Your task to perform on an android device: Show the shopping cart on ebay.com. Search for bose soundlink on ebay.com, select the first entry, add it to the cart, then select checkout. Image 0: 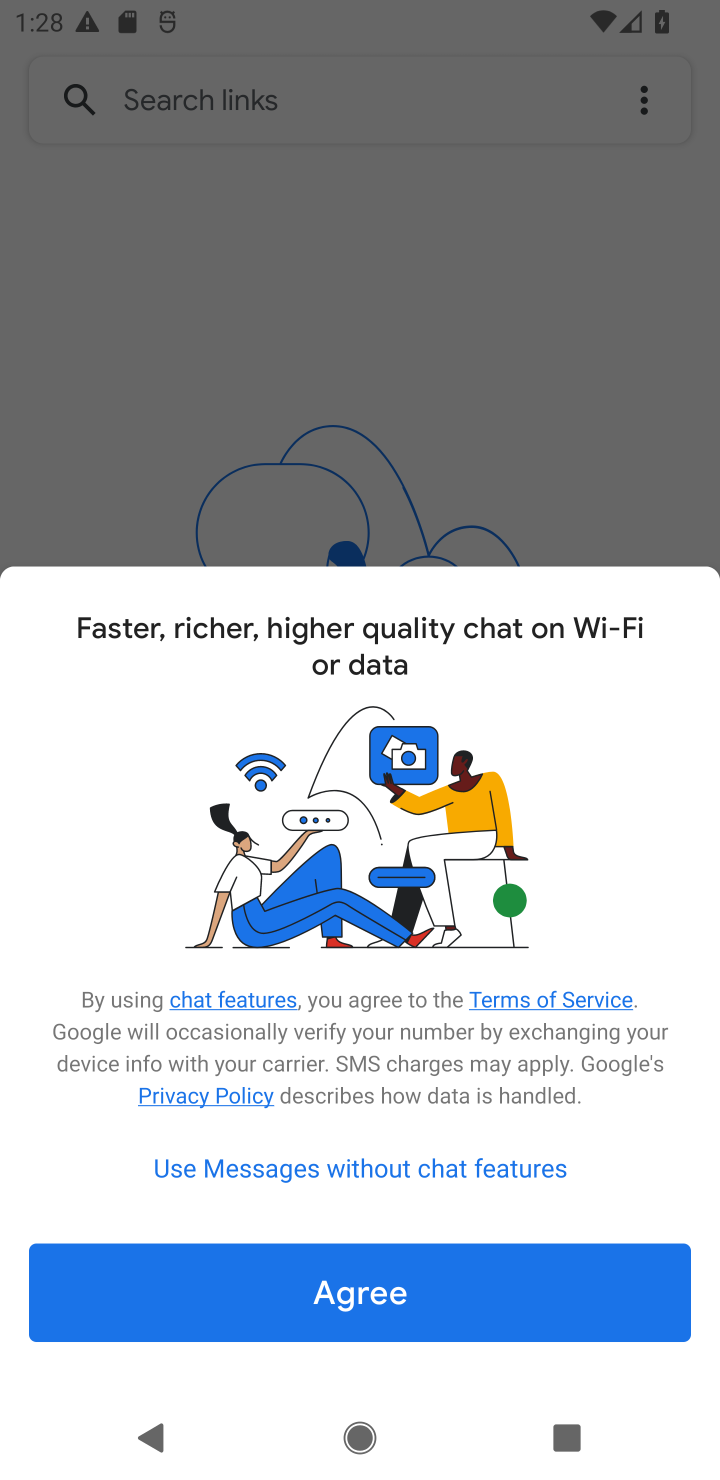
Step 0: press home button
Your task to perform on an android device: Show the shopping cart on ebay.com. Search for bose soundlink on ebay.com, select the first entry, add it to the cart, then select checkout. Image 1: 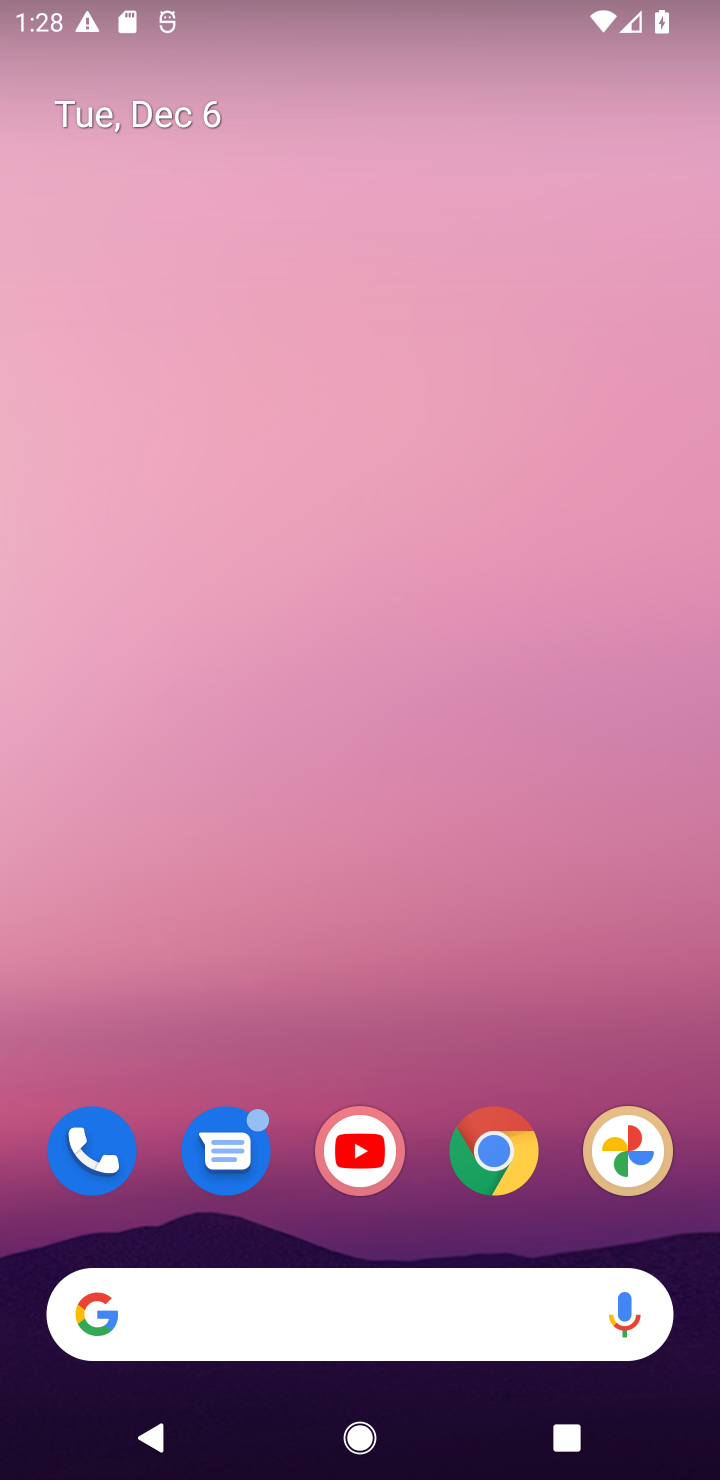
Step 1: click (505, 1157)
Your task to perform on an android device: Show the shopping cart on ebay.com. Search for bose soundlink on ebay.com, select the first entry, add it to the cart, then select checkout. Image 2: 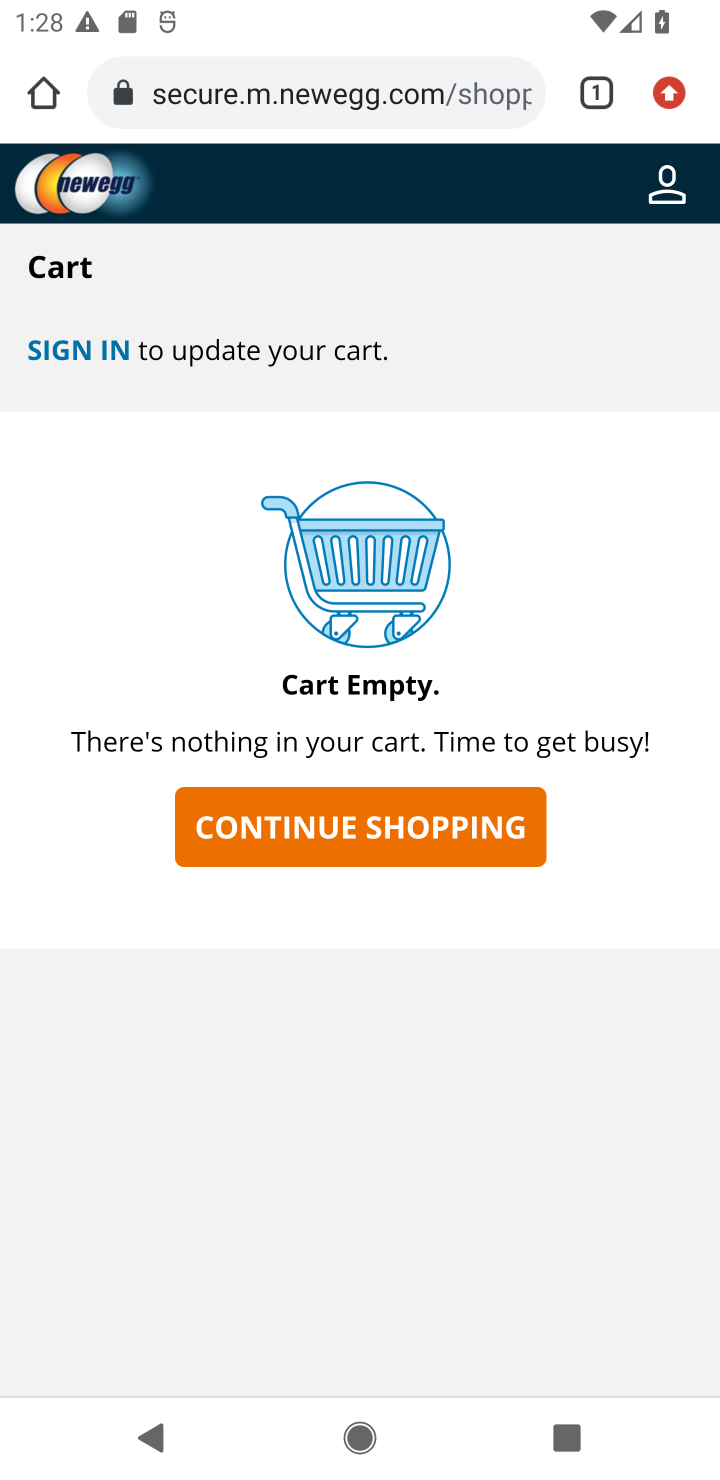
Step 2: click (265, 106)
Your task to perform on an android device: Show the shopping cart on ebay.com. Search for bose soundlink on ebay.com, select the first entry, add it to the cart, then select checkout. Image 3: 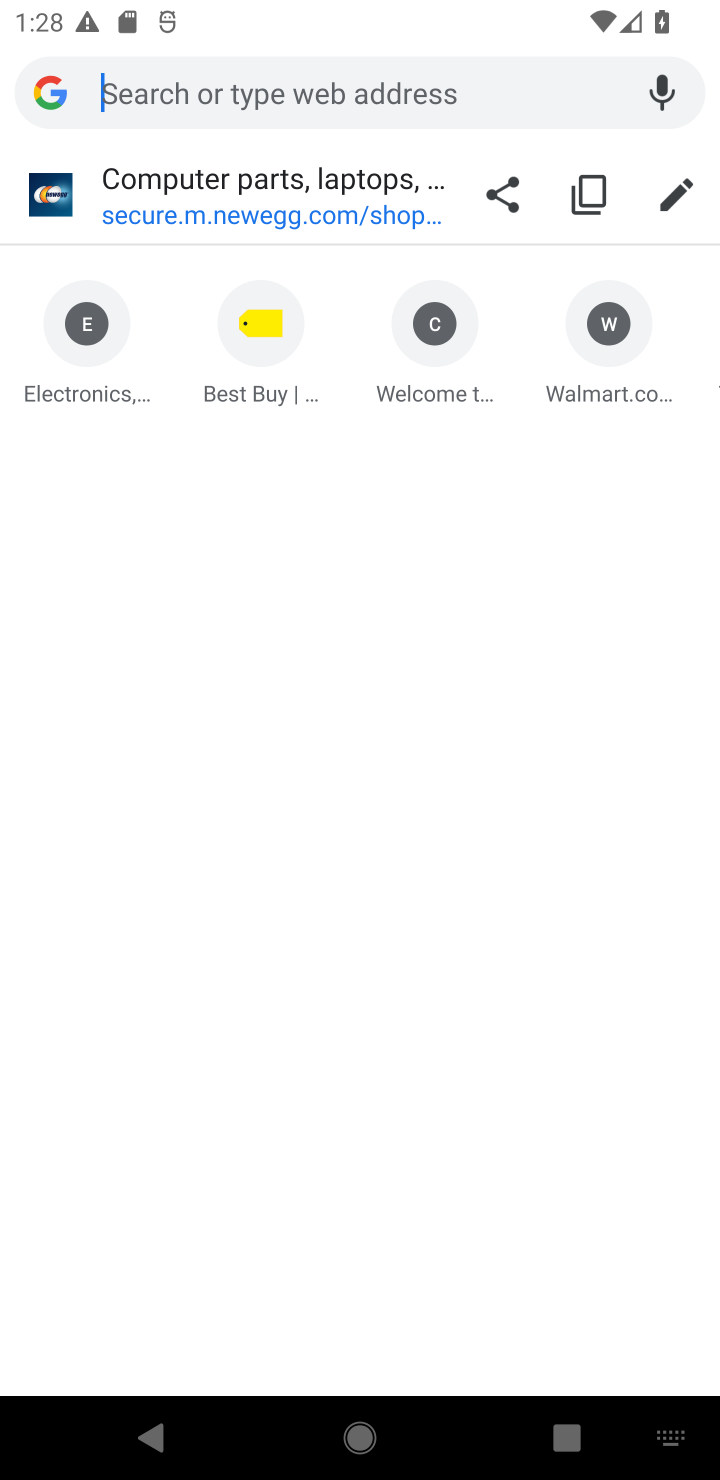
Step 3: type "ebay.com"
Your task to perform on an android device: Show the shopping cart on ebay.com. Search for bose soundlink on ebay.com, select the first entry, add it to the cart, then select checkout. Image 4: 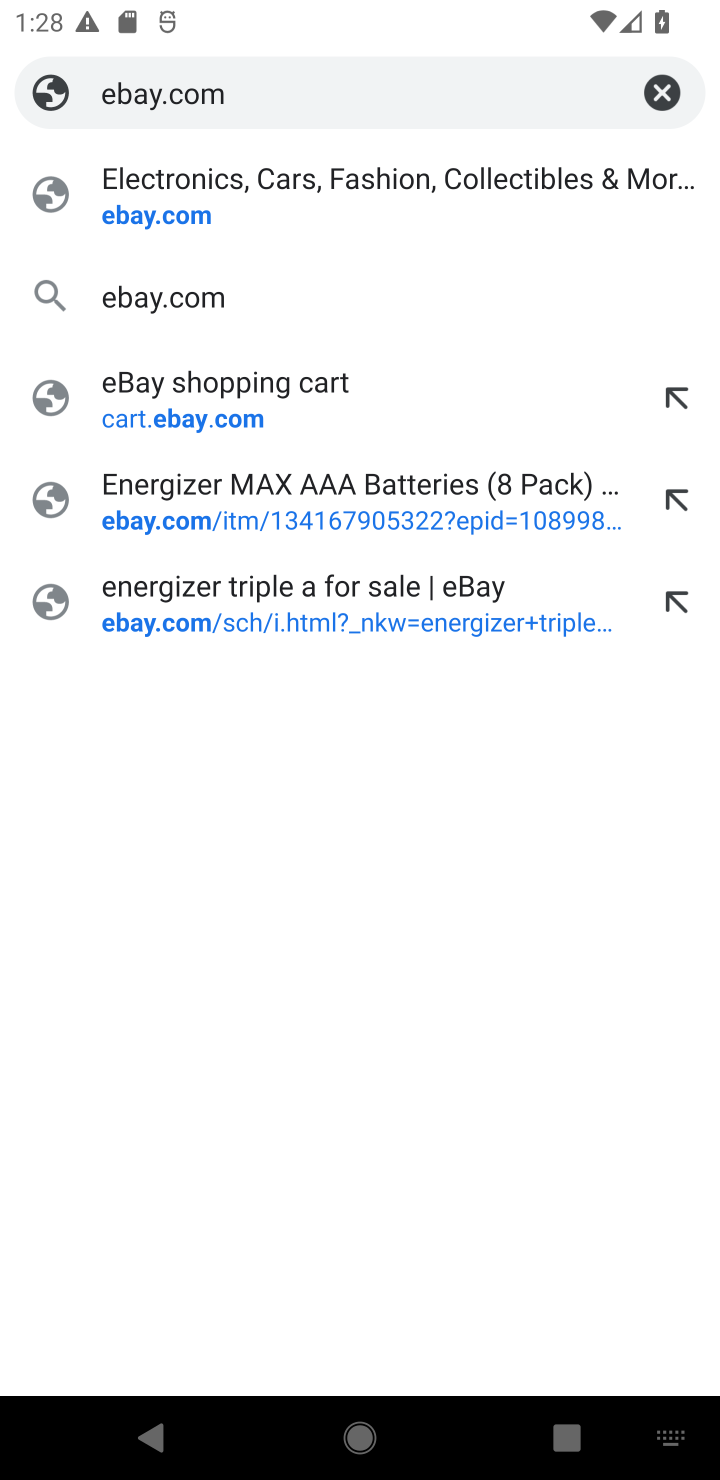
Step 4: click (141, 217)
Your task to perform on an android device: Show the shopping cart on ebay.com. Search for bose soundlink on ebay.com, select the first entry, add it to the cart, then select checkout. Image 5: 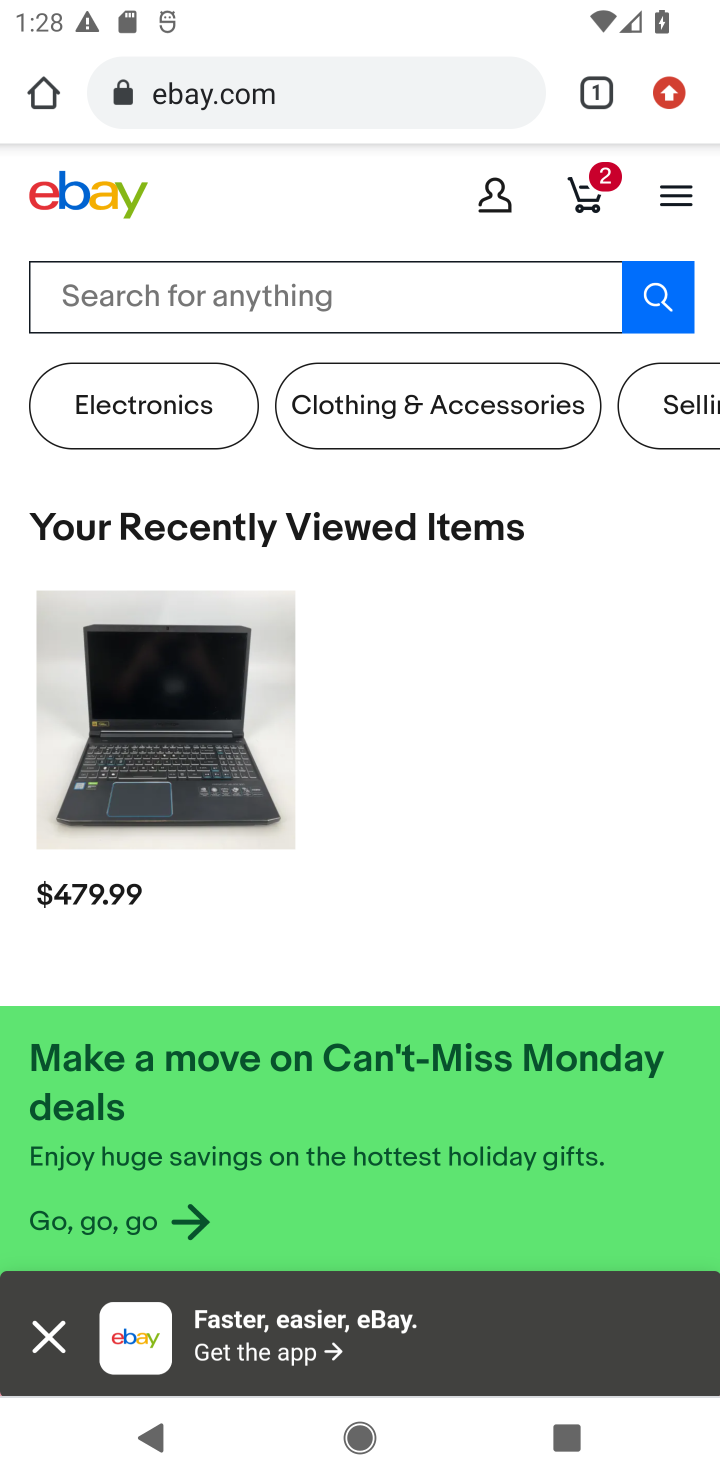
Step 5: click (575, 195)
Your task to perform on an android device: Show the shopping cart on ebay.com. Search for bose soundlink on ebay.com, select the first entry, add it to the cart, then select checkout. Image 6: 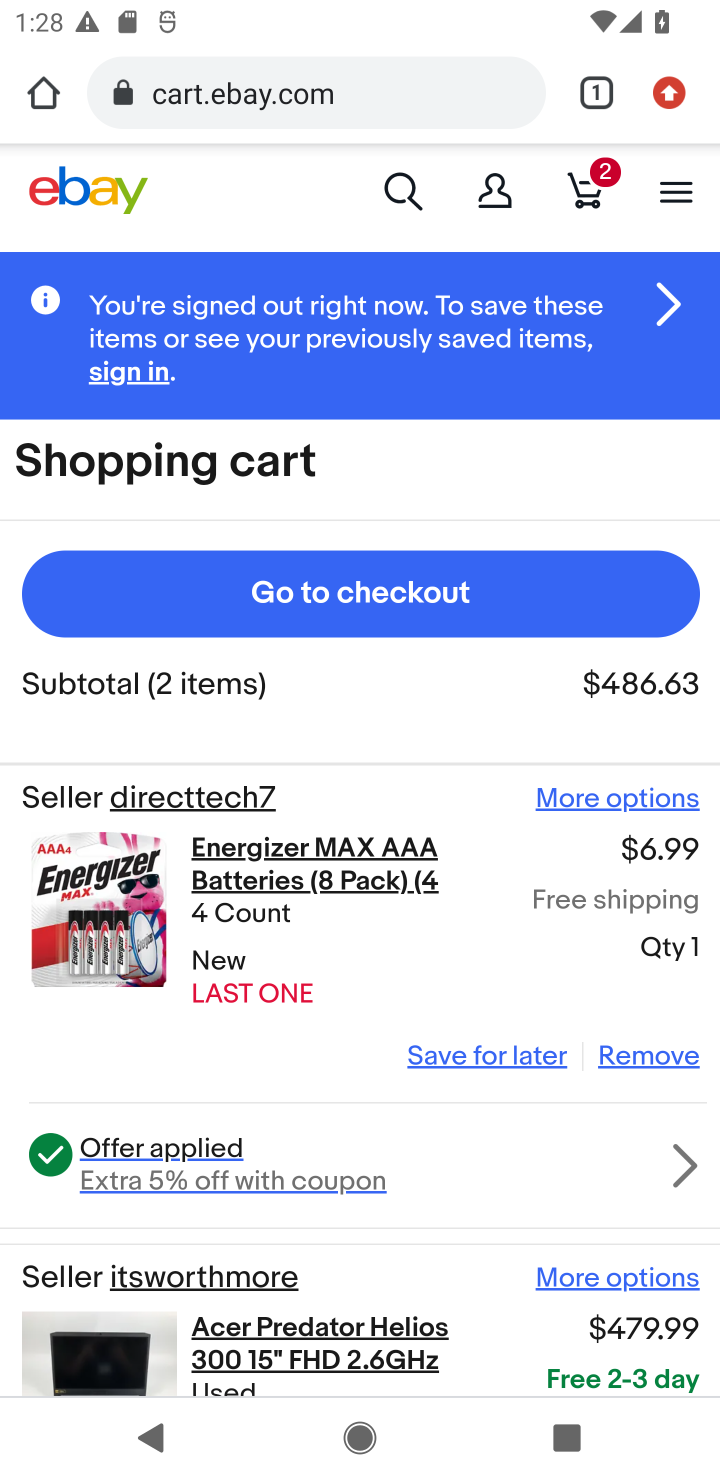
Step 6: click (406, 195)
Your task to perform on an android device: Show the shopping cart on ebay.com. Search for bose soundlink on ebay.com, select the first entry, add it to the cart, then select checkout. Image 7: 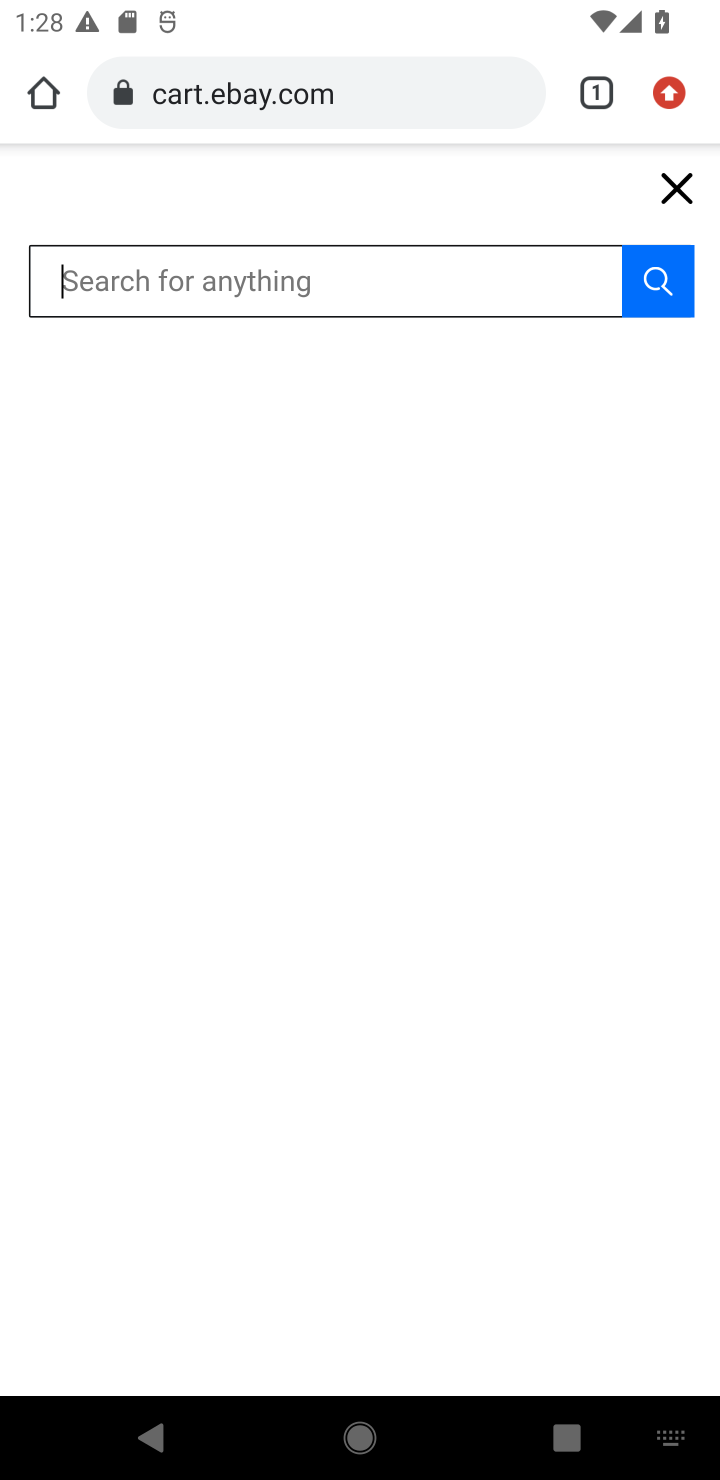
Step 7: type " bose soundlink "
Your task to perform on an android device: Show the shopping cart on ebay.com. Search for bose soundlink on ebay.com, select the first entry, add it to the cart, then select checkout. Image 8: 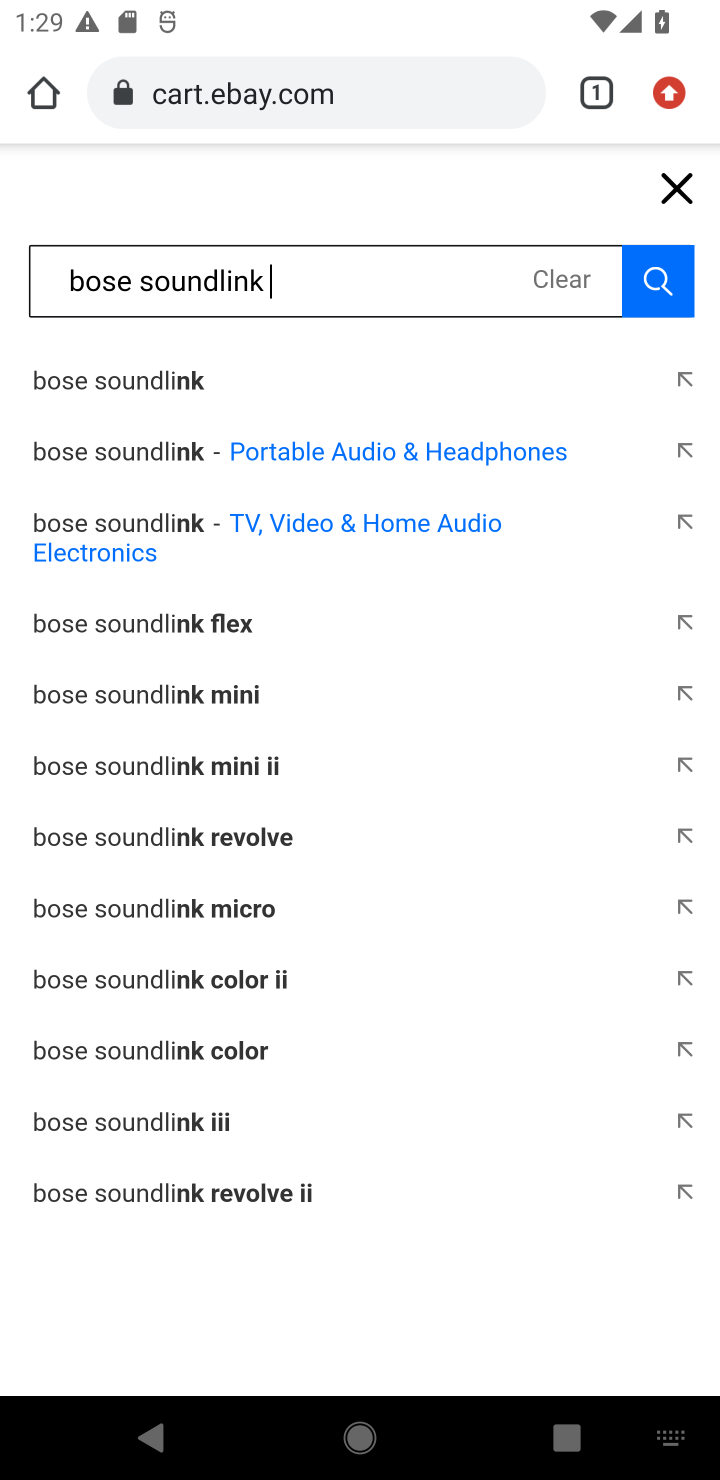
Step 8: click (174, 396)
Your task to perform on an android device: Show the shopping cart on ebay.com. Search for bose soundlink on ebay.com, select the first entry, add it to the cart, then select checkout. Image 9: 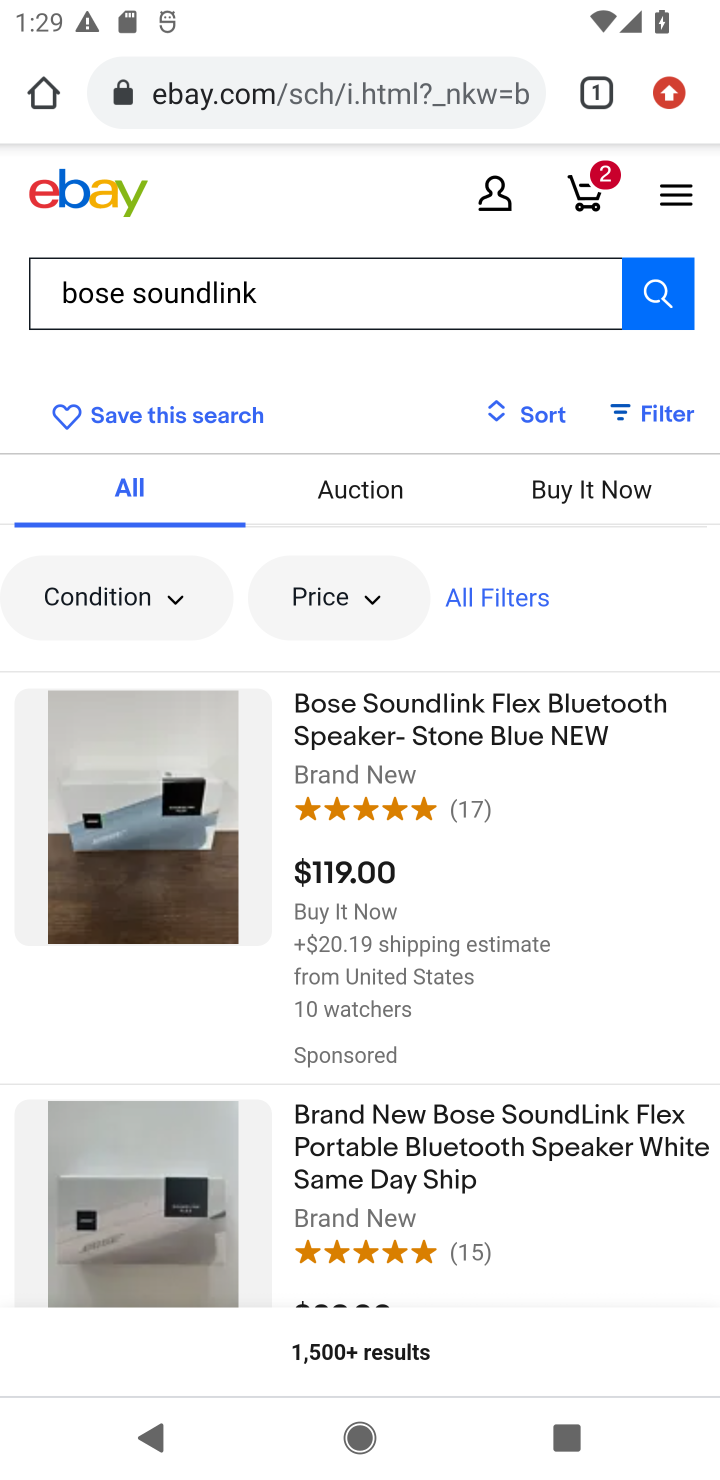
Step 9: click (316, 733)
Your task to perform on an android device: Show the shopping cart on ebay.com. Search for bose soundlink on ebay.com, select the first entry, add it to the cart, then select checkout. Image 10: 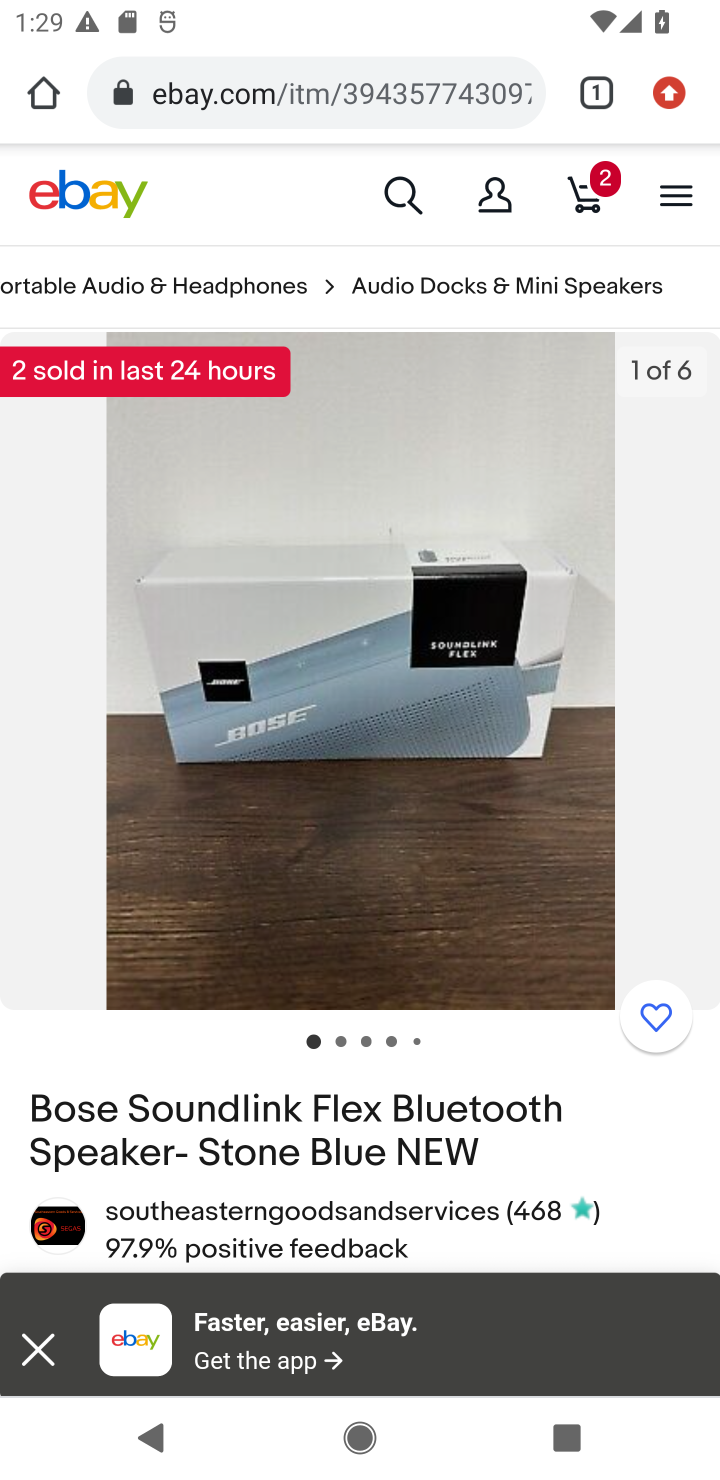
Step 10: drag from (413, 1120) to (371, 498)
Your task to perform on an android device: Show the shopping cart on ebay.com. Search for bose soundlink on ebay.com, select the first entry, add it to the cart, then select checkout. Image 11: 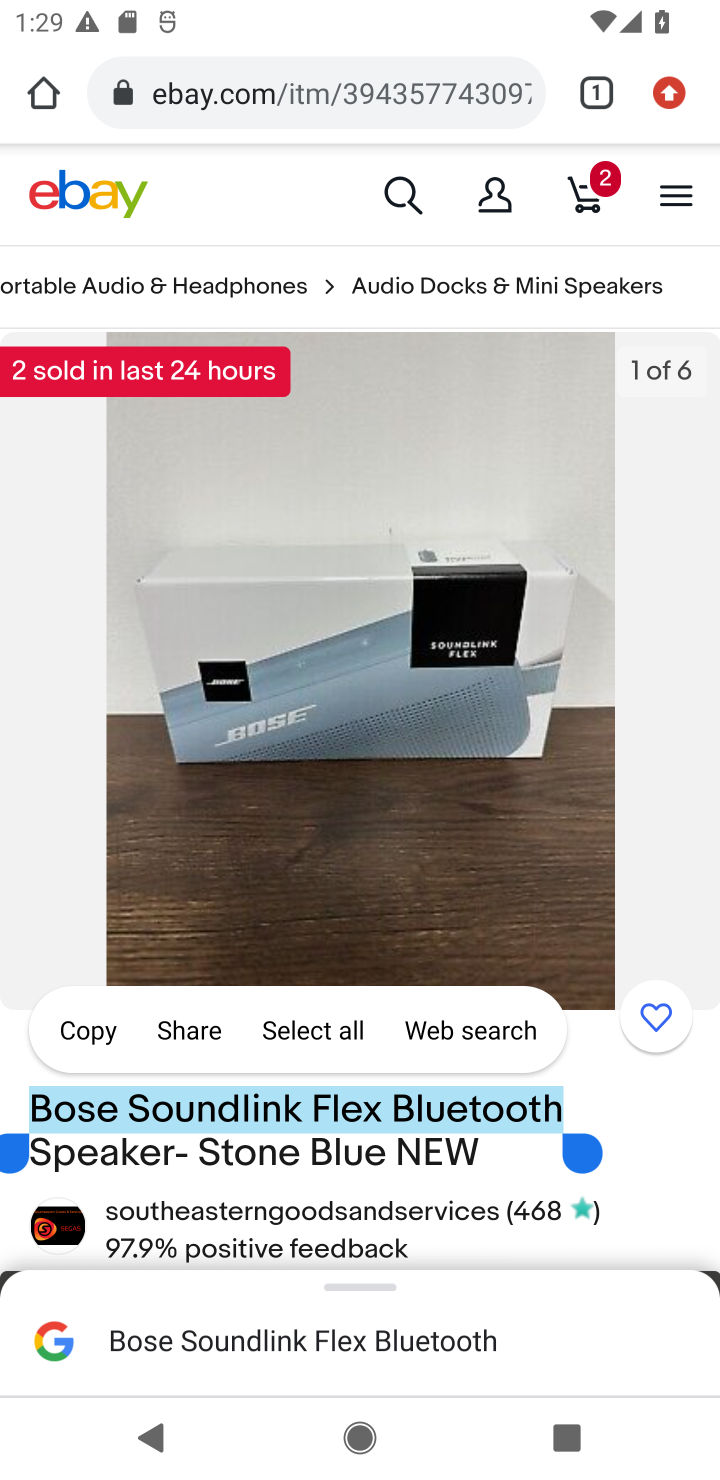
Step 11: drag from (671, 1096) to (642, 573)
Your task to perform on an android device: Show the shopping cart on ebay.com. Search for bose soundlink on ebay.com, select the first entry, add it to the cart, then select checkout. Image 12: 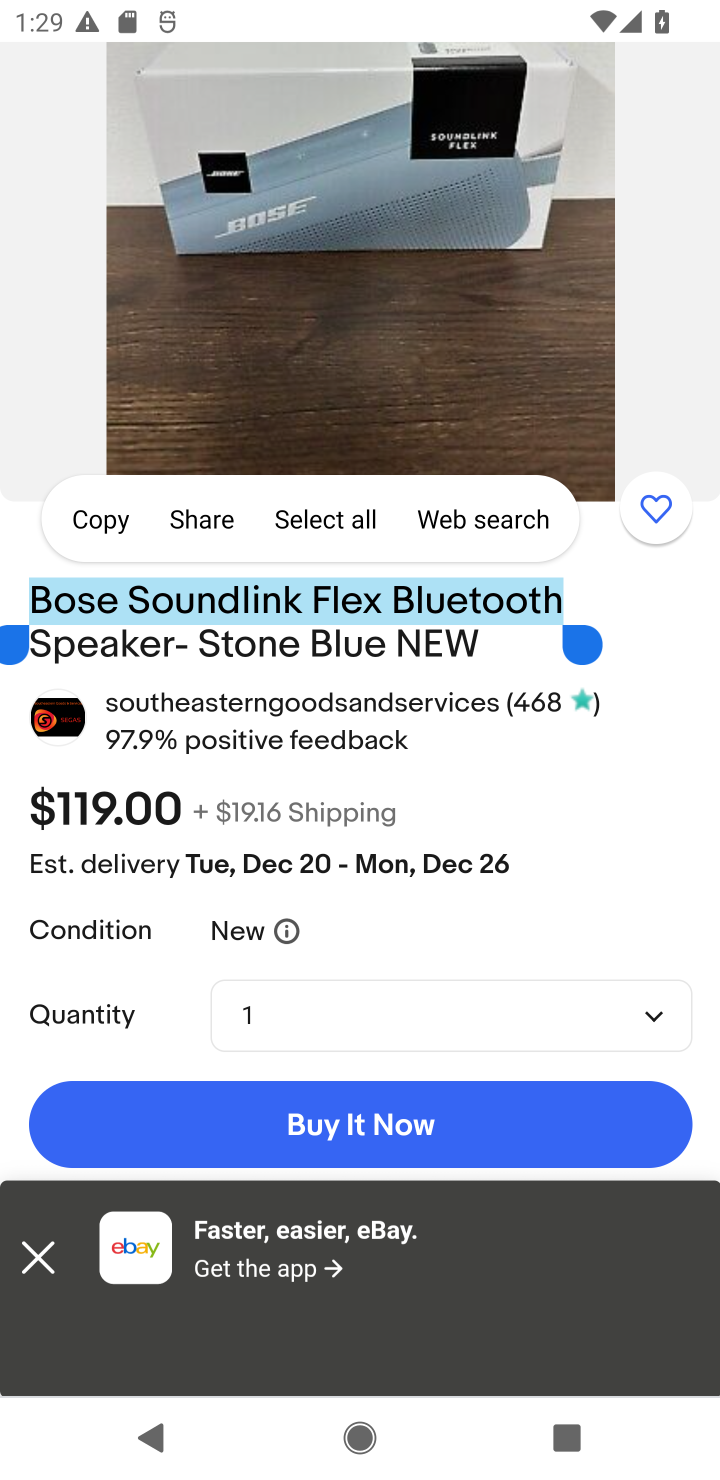
Step 12: drag from (469, 986) to (474, 586)
Your task to perform on an android device: Show the shopping cart on ebay.com. Search for bose soundlink on ebay.com, select the first entry, add it to the cart, then select checkout. Image 13: 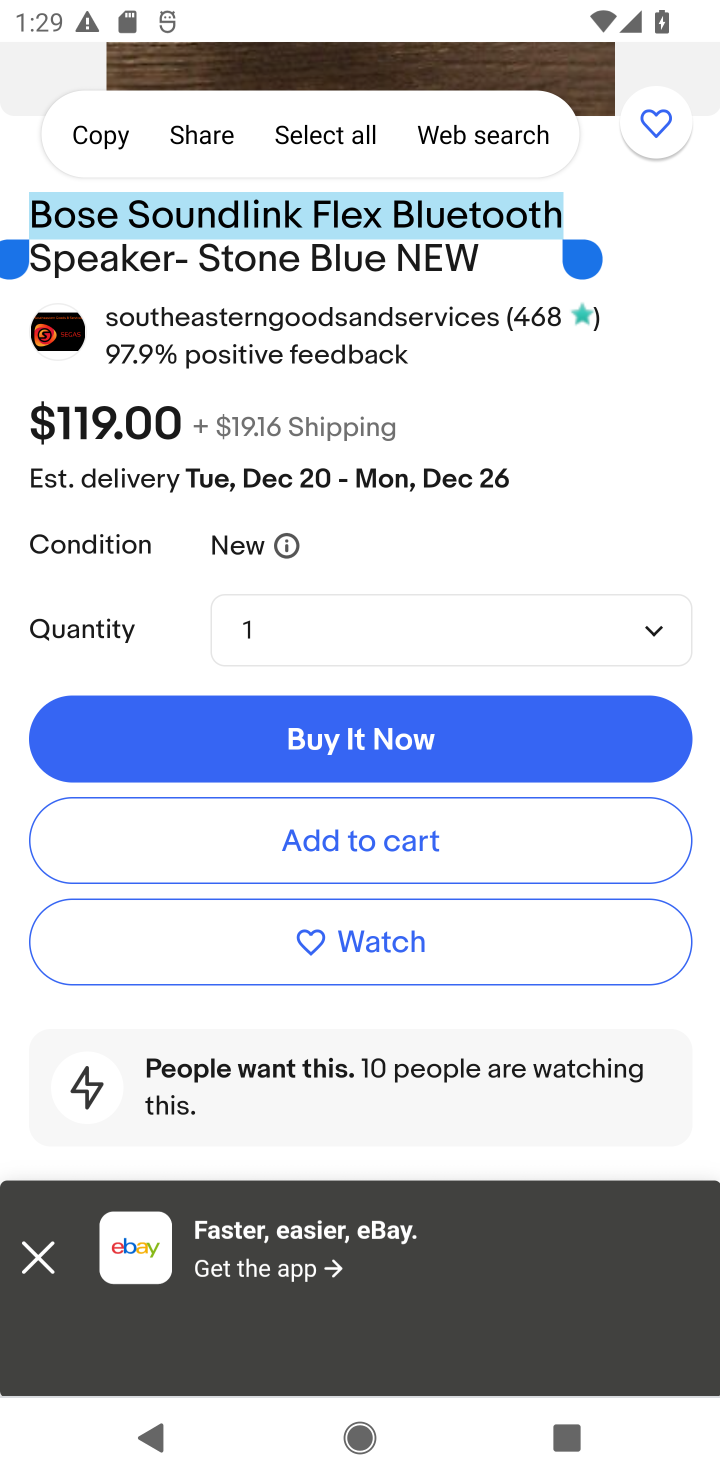
Step 13: click (306, 830)
Your task to perform on an android device: Show the shopping cart on ebay.com. Search for bose soundlink on ebay.com, select the first entry, add it to the cart, then select checkout. Image 14: 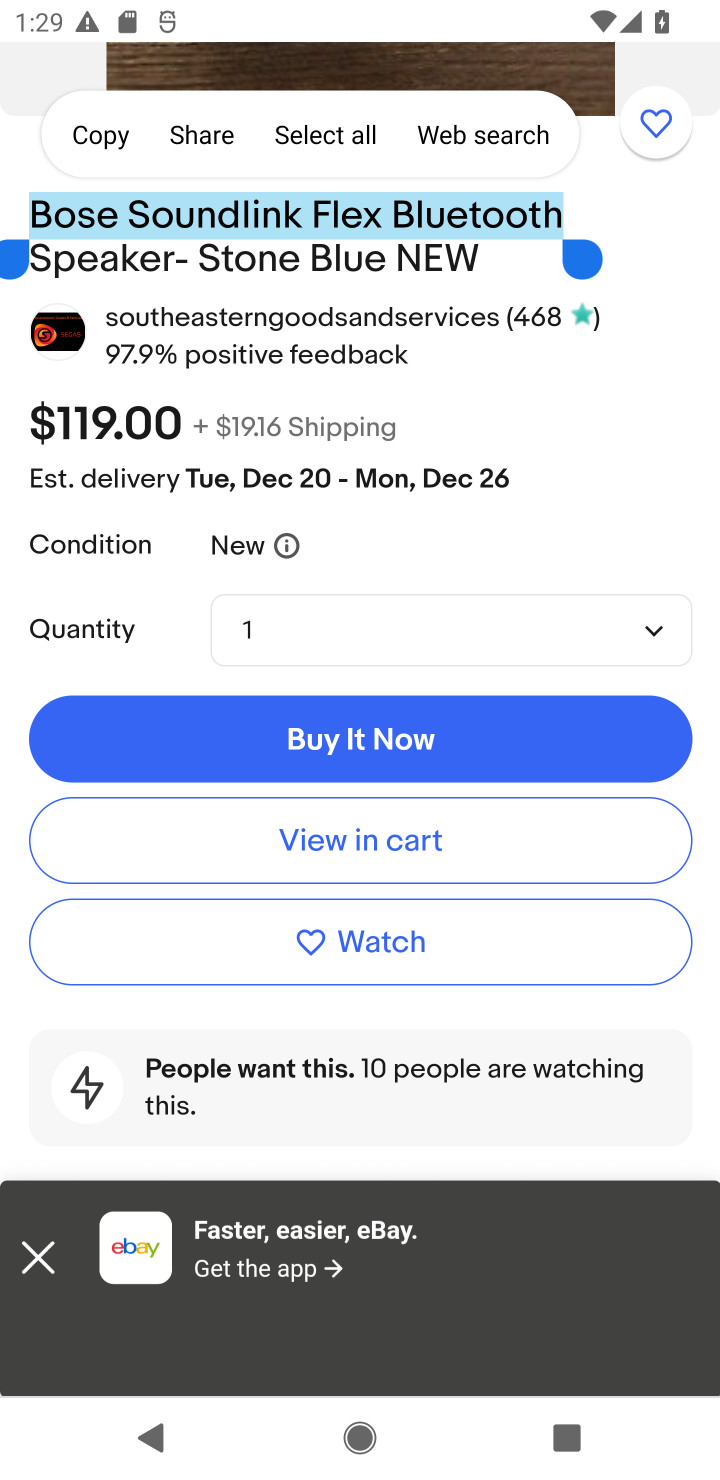
Step 14: click (304, 836)
Your task to perform on an android device: Show the shopping cart on ebay.com. Search for bose soundlink on ebay.com, select the first entry, add it to the cart, then select checkout. Image 15: 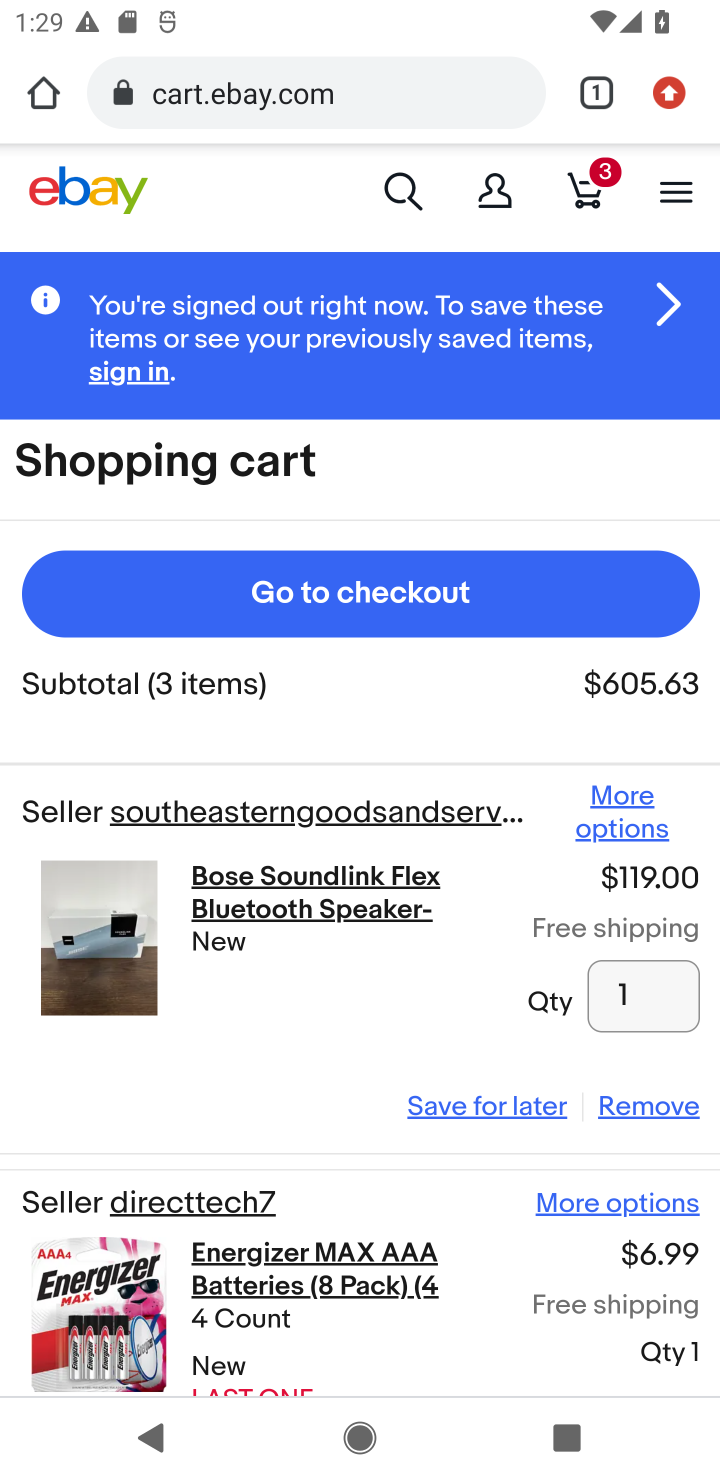
Step 15: click (312, 601)
Your task to perform on an android device: Show the shopping cart on ebay.com. Search for bose soundlink on ebay.com, select the first entry, add it to the cart, then select checkout. Image 16: 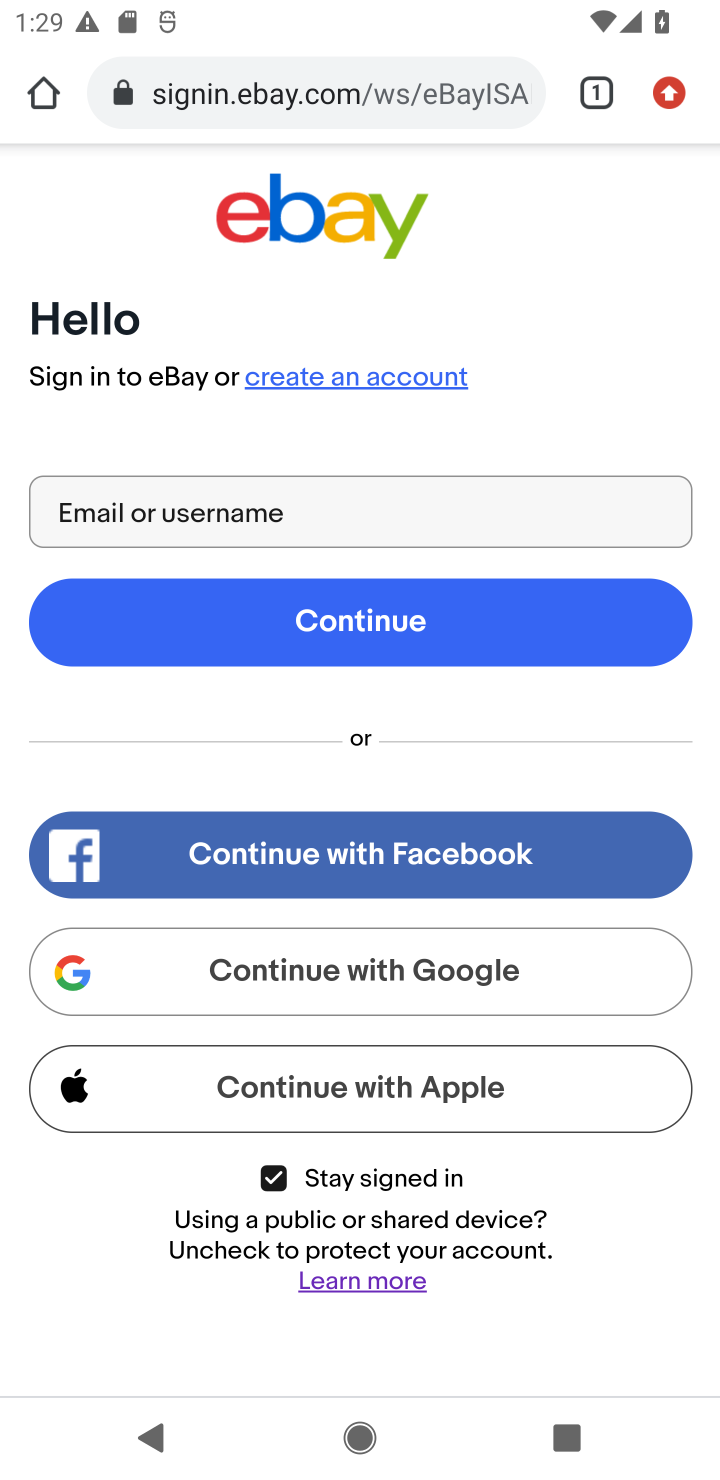
Step 16: task complete